Your task to perform on an android device: Is it going to rain this weekend? Image 0: 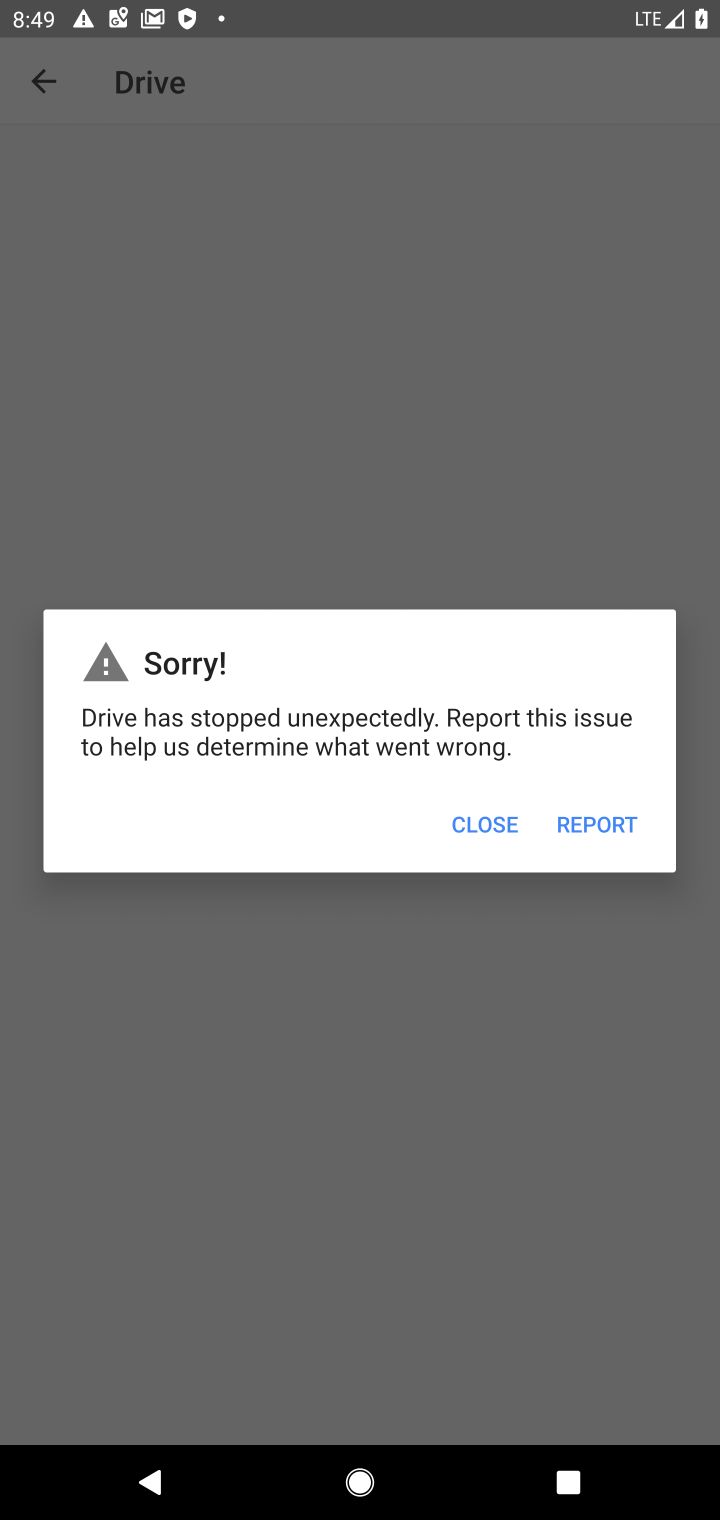
Step 0: press home button
Your task to perform on an android device: Is it going to rain this weekend? Image 1: 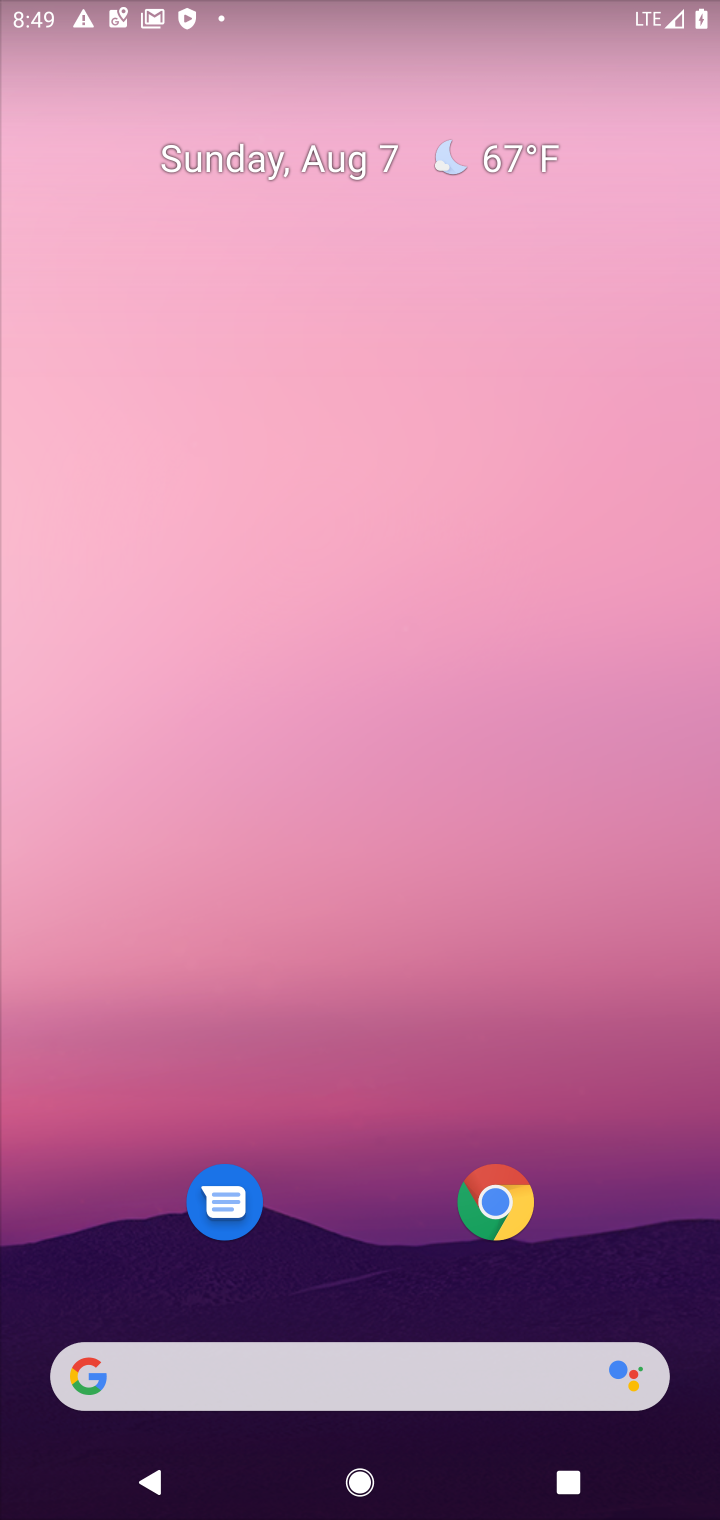
Step 1: click (280, 1375)
Your task to perform on an android device: Is it going to rain this weekend? Image 2: 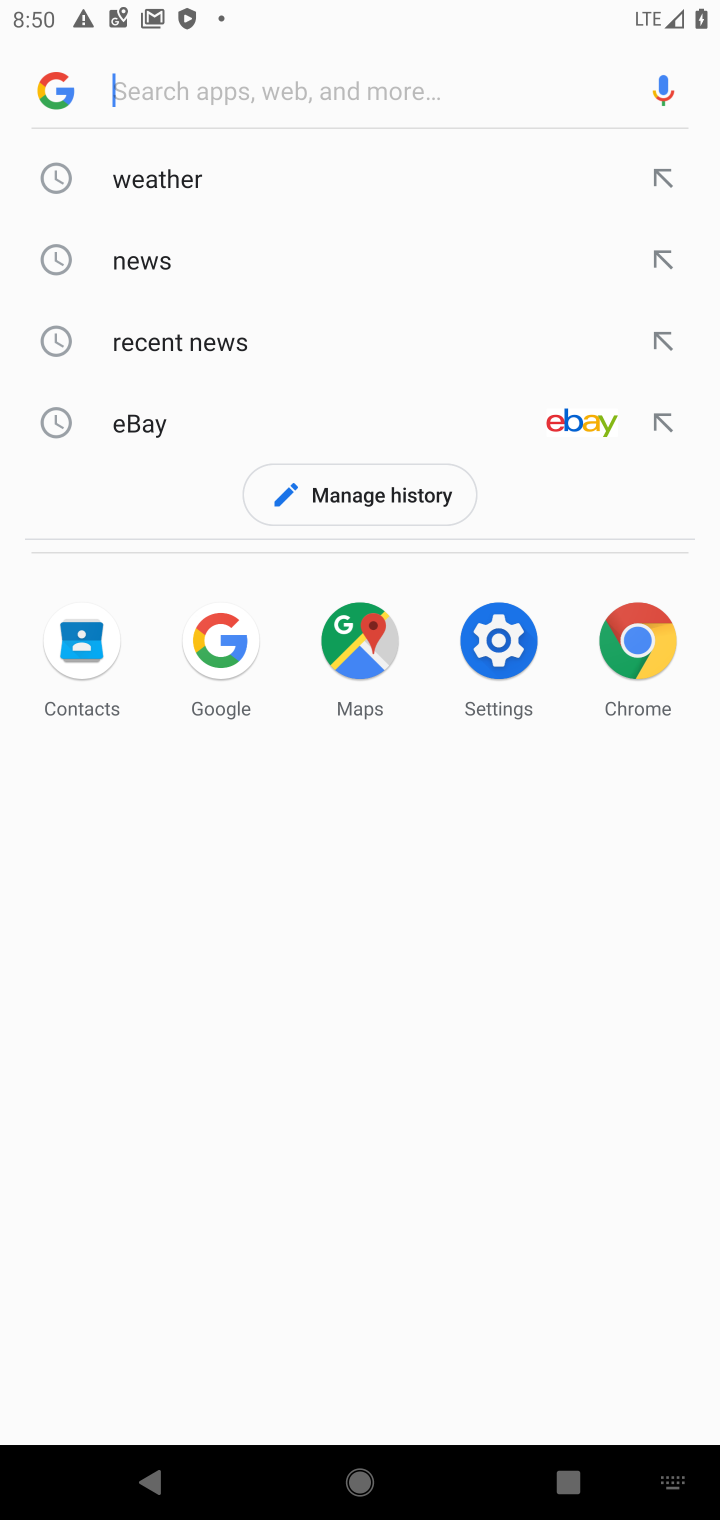
Step 2: type "is it going to rain this weekend"
Your task to perform on an android device: Is it going to rain this weekend? Image 3: 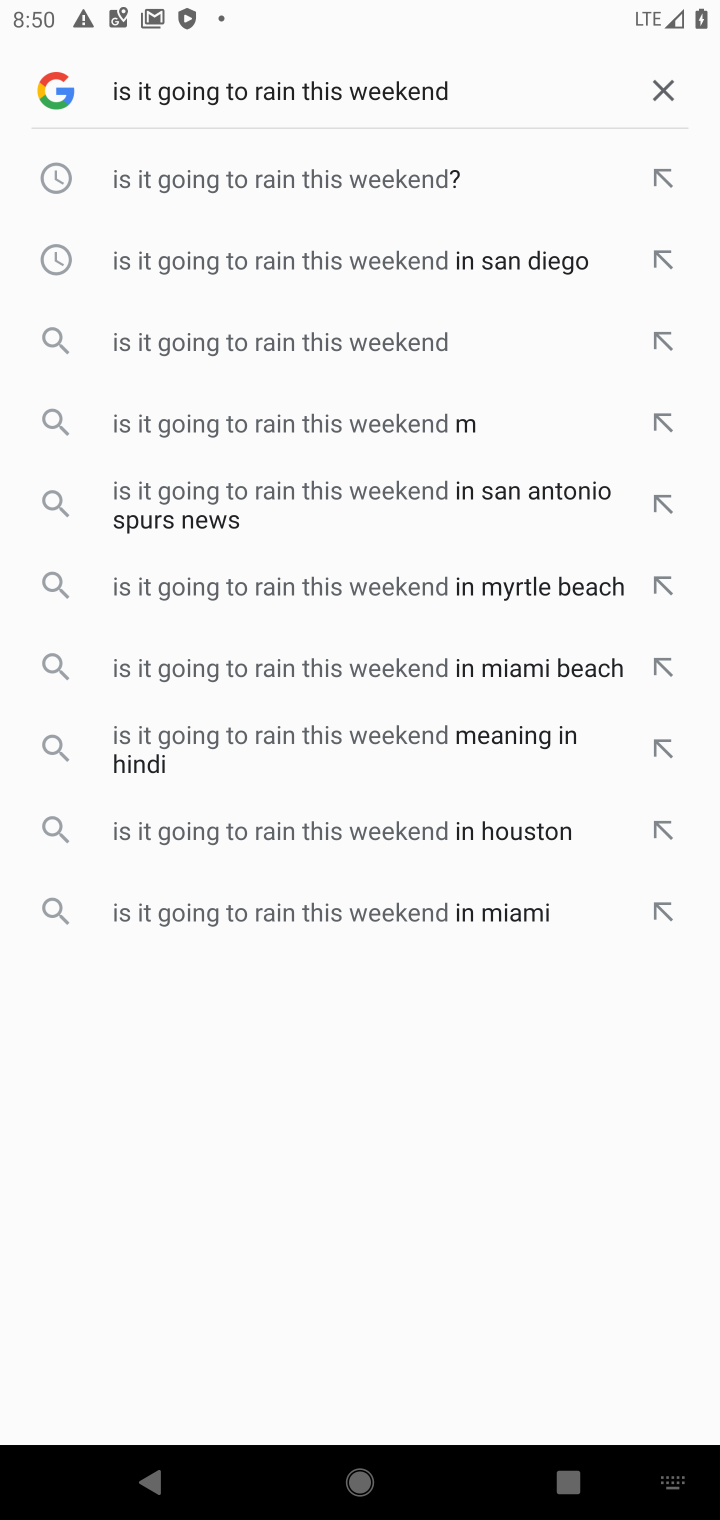
Step 3: click (295, 196)
Your task to perform on an android device: Is it going to rain this weekend? Image 4: 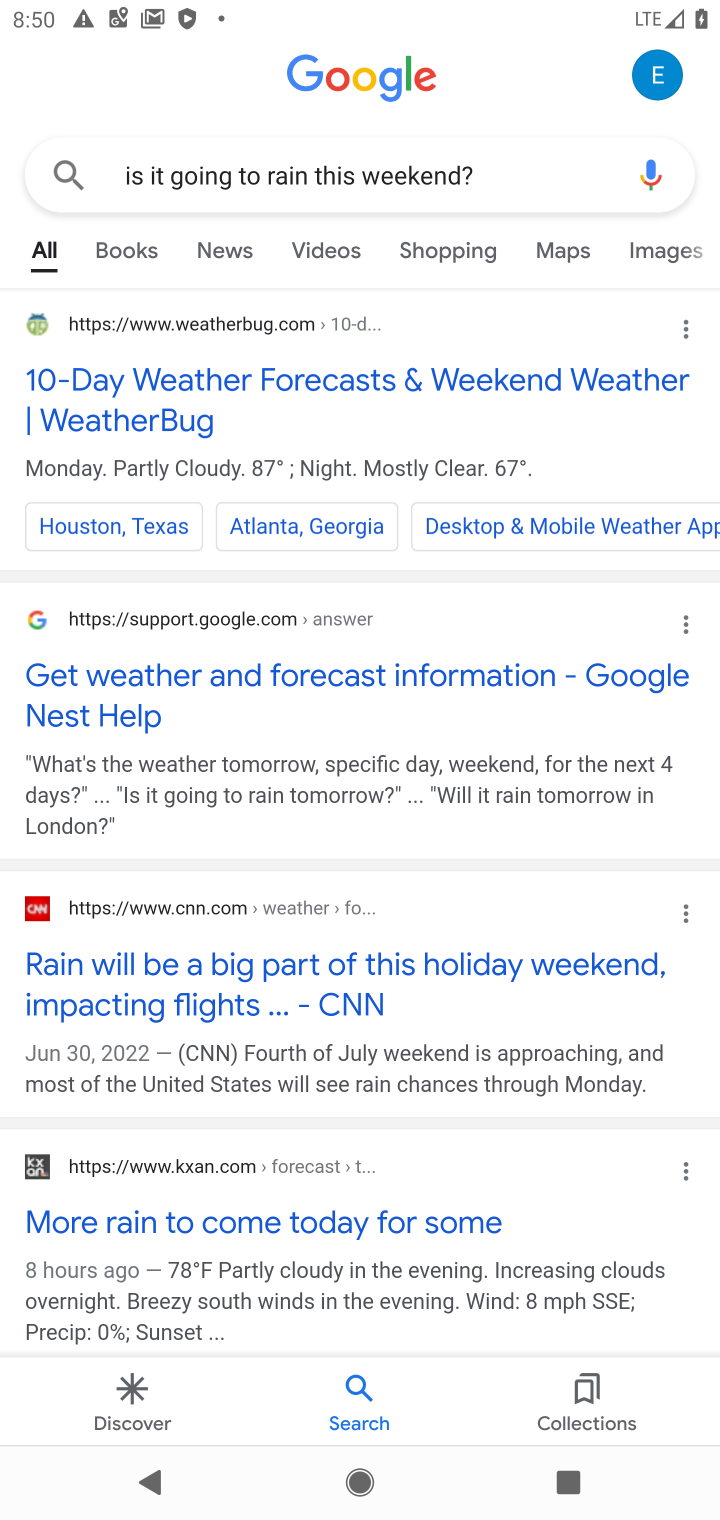
Step 4: click (388, 388)
Your task to perform on an android device: Is it going to rain this weekend? Image 5: 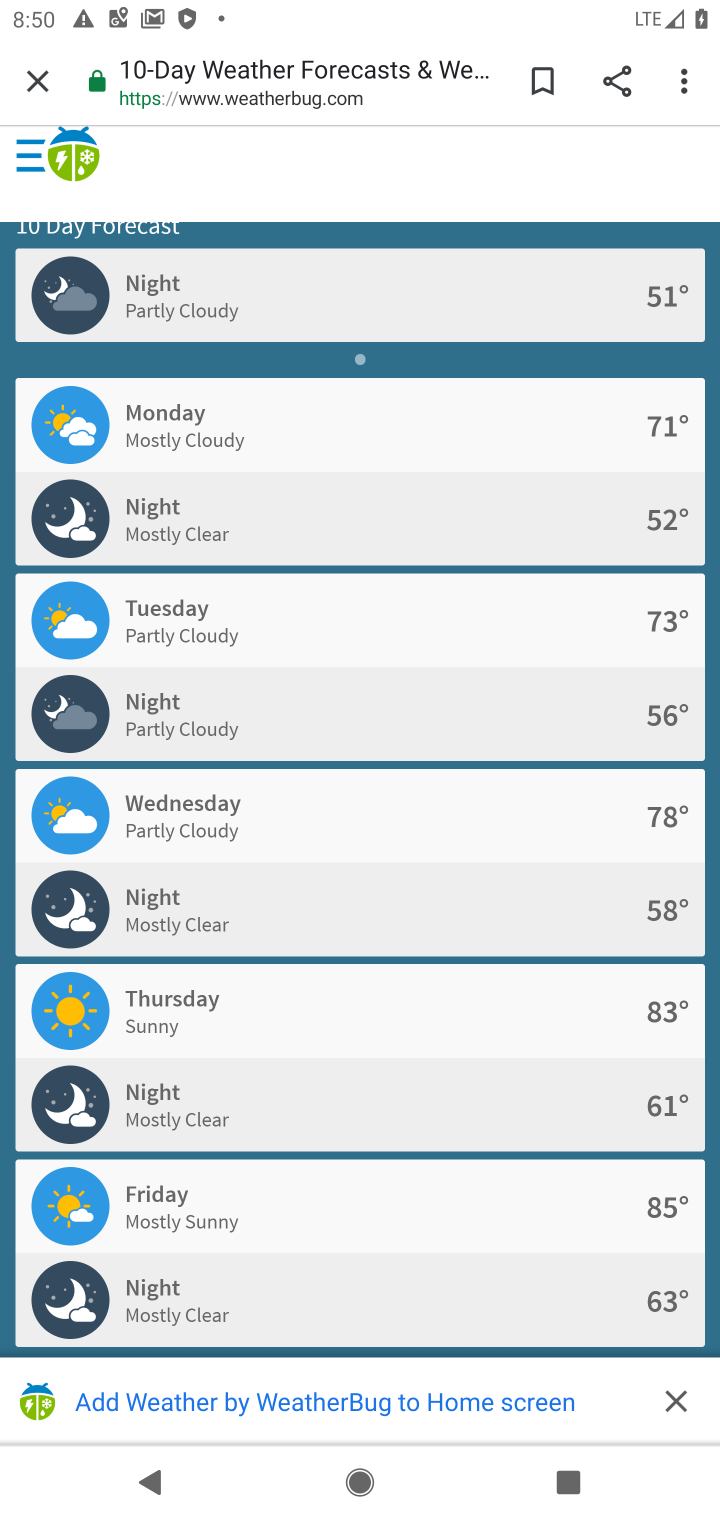
Step 5: task complete